Your task to perform on an android device: Show me recent news Image 0: 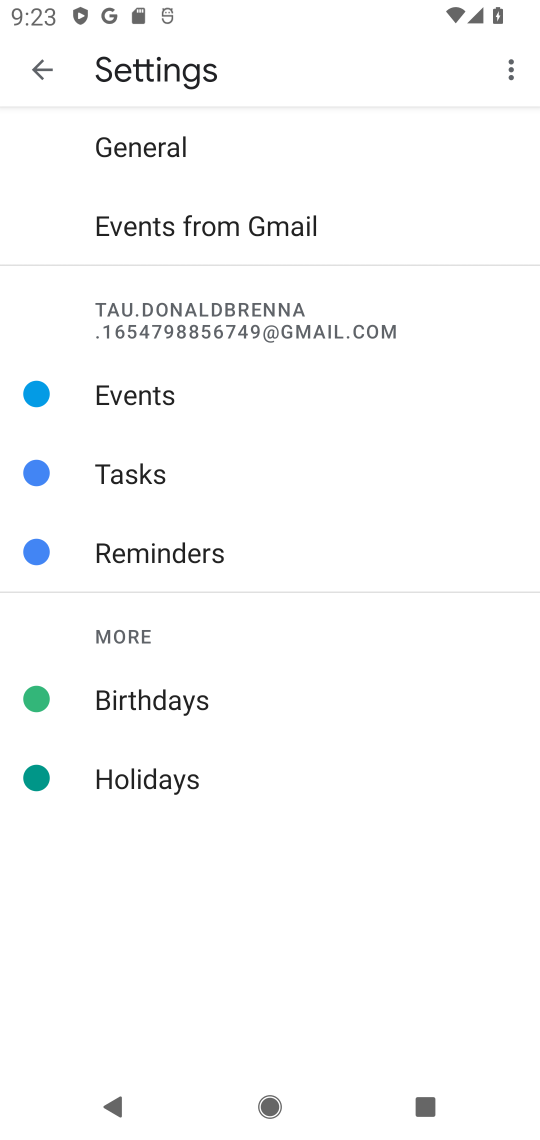
Step 0: press home button
Your task to perform on an android device: Show me recent news Image 1: 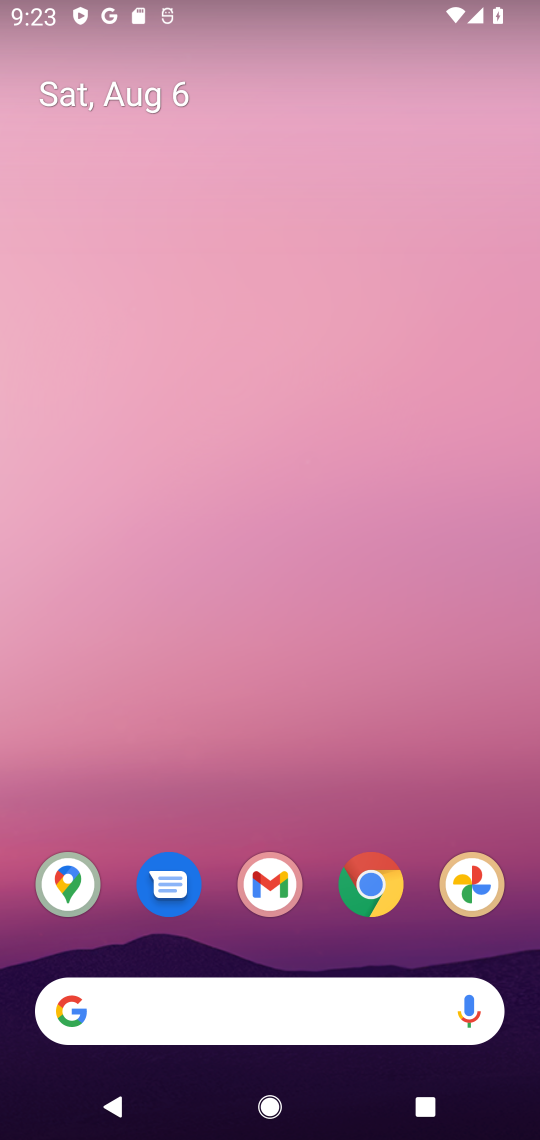
Step 1: task complete